Your task to perform on an android device: Set the phone to "Do not disturb". Image 0: 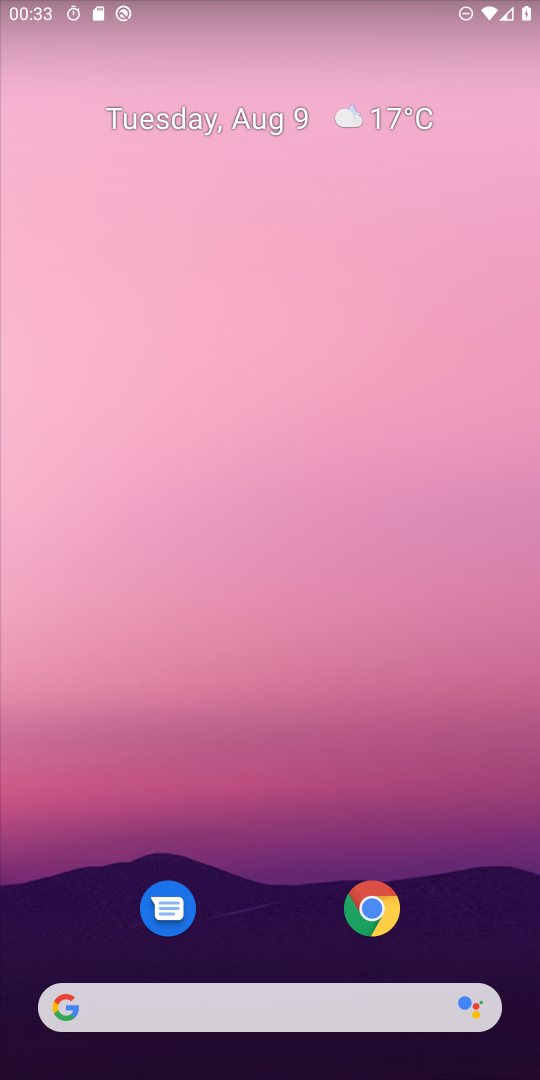
Step 0: drag from (457, 946) to (219, 66)
Your task to perform on an android device: Set the phone to "Do not disturb". Image 1: 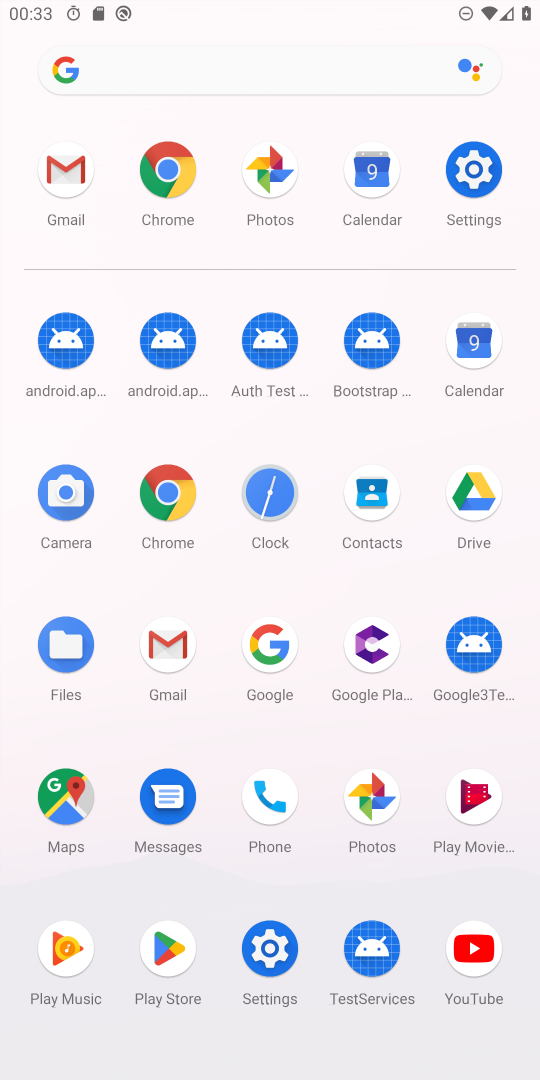
Step 1: click (479, 176)
Your task to perform on an android device: Set the phone to "Do not disturb". Image 2: 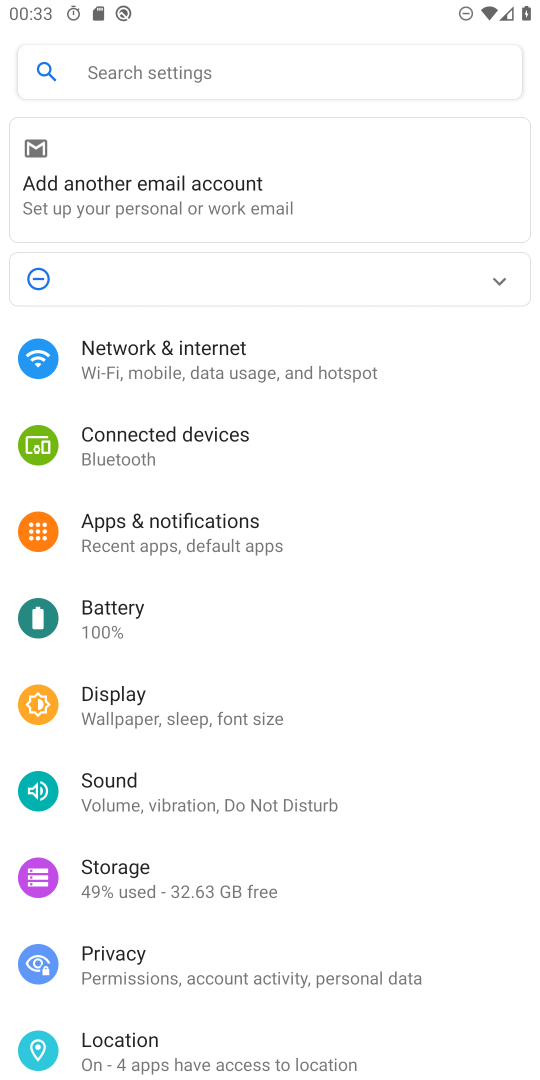
Step 2: click (288, 786)
Your task to perform on an android device: Set the phone to "Do not disturb". Image 3: 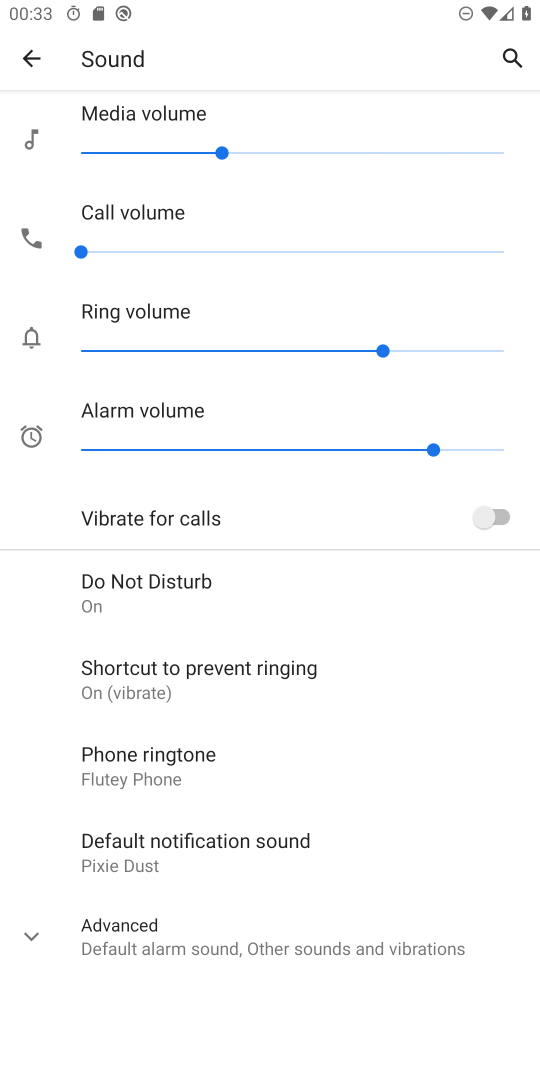
Step 3: click (321, 602)
Your task to perform on an android device: Set the phone to "Do not disturb". Image 4: 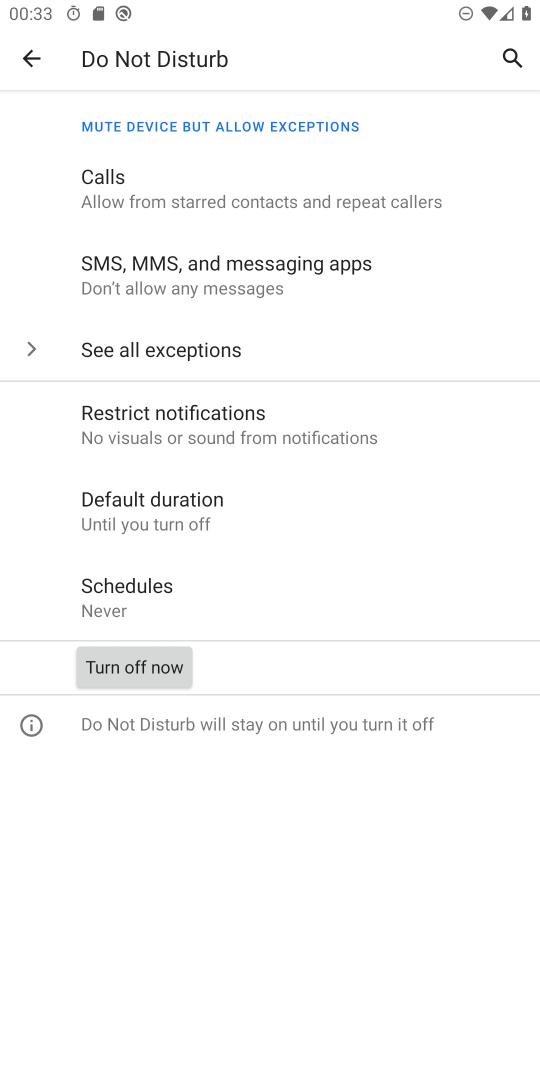
Step 4: task complete